Your task to perform on an android device: turn notification dots off Image 0: 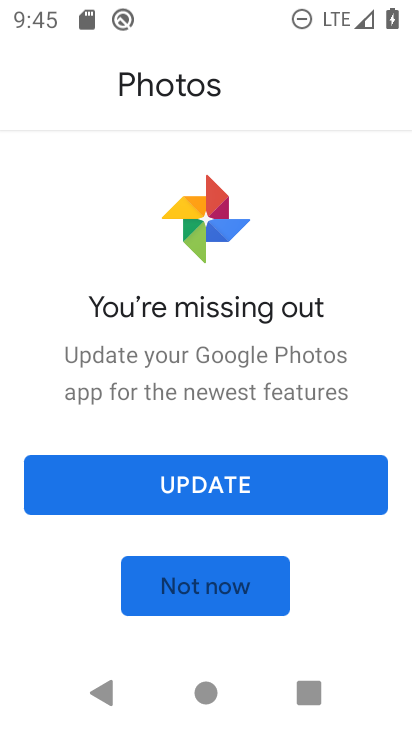
Step 0: task impossible